Your task to perform on an android device: Open Chrome and go to the settings page Image 0: 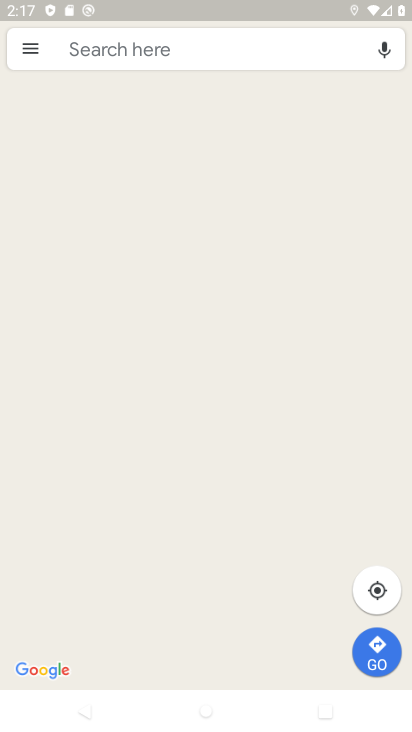
Step 0: press home button
Your task to perform on an android device: Open Chrome and go to the settings page Image 1: 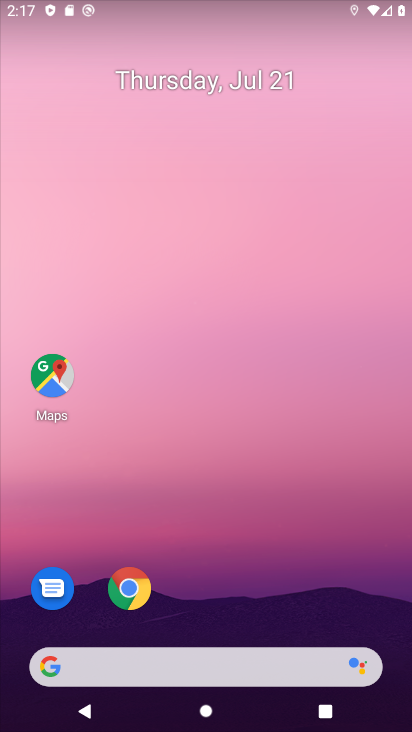
Step 1: click (128, 587)
Your task to perform on an android device: Open Chrome and go to the settings page Image 2: 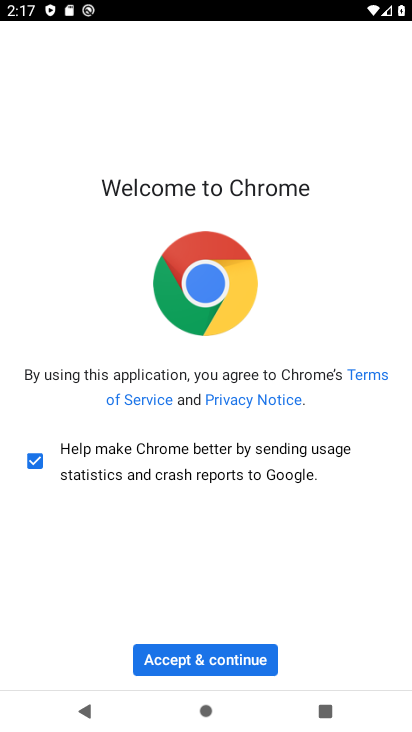
Step 2: click (42, 453)
Your task to perform on an android device: Open Chrome and go to the settings page Image 3: 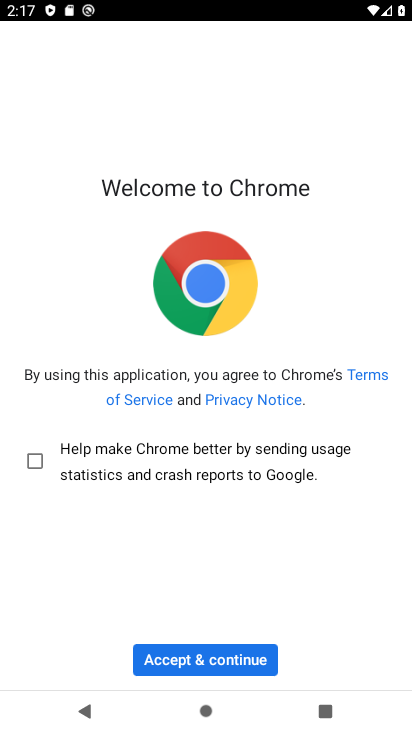
Step 3: click (206, 657)
Your task to perform on an android device: Open Chrome and go to the settings page Image 4: 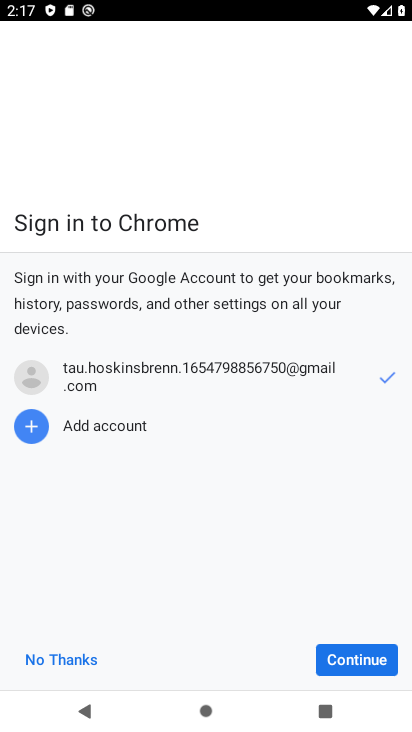
Step 4: click (368, 666)
Your task to perform on an android device: Open Chrome and go to the settings page Image 5: 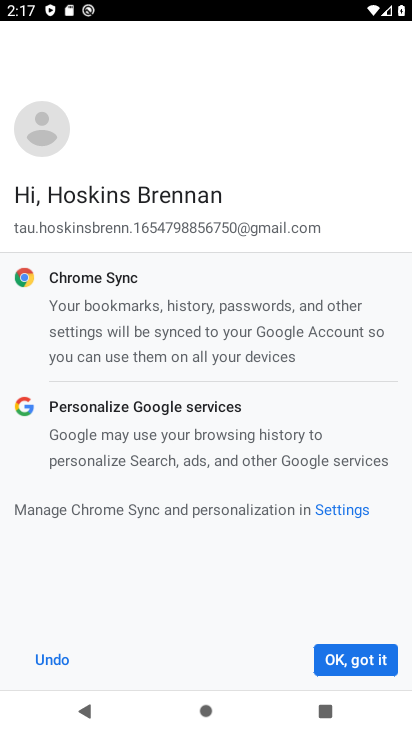
Step 5: click (354, 660)
Your task to perform on an android device: Open Chrome and go to the settings page Image 6: 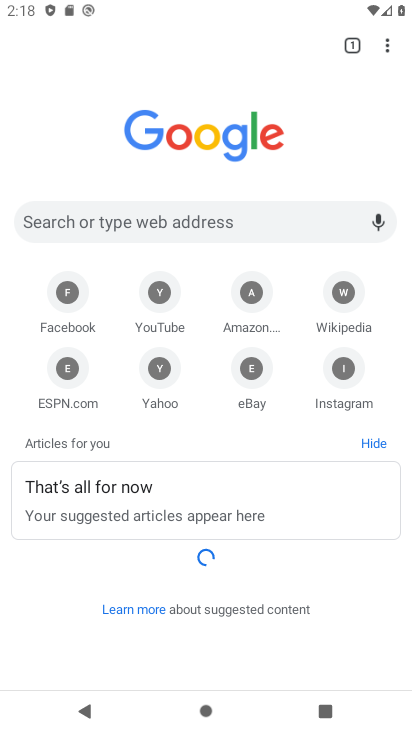
Step 6: click (387, 41)
Your task to perform on an android device: Open Chrome and go to the settings page Image 7: 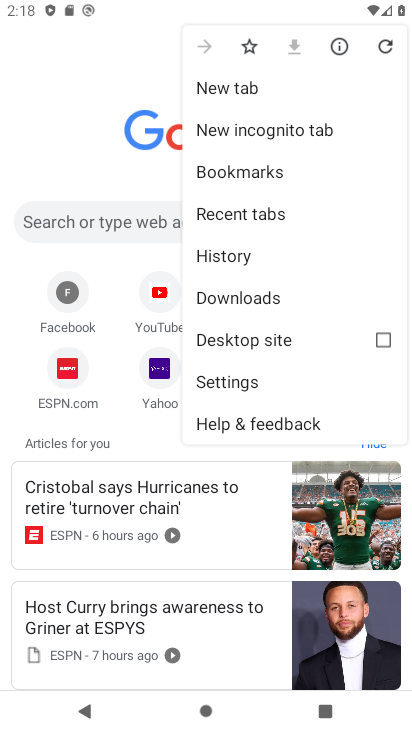
Step 7: click (224, 375)
Your task to perform on an android device: Open Chrome and go to the settings page Image 8: 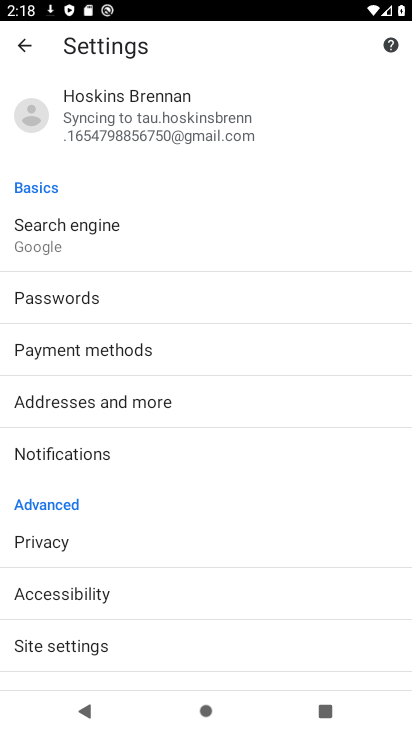
Step 8: task complete